Your task to perform on an android device: Go to network settings Image 0: 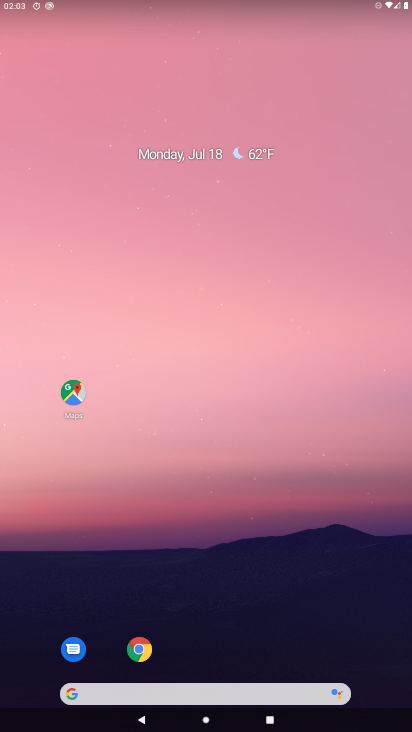
Step 0: drag from (51, 624) to (245, 6)
Your task to perform on an android device: Go to network settings Image 1: 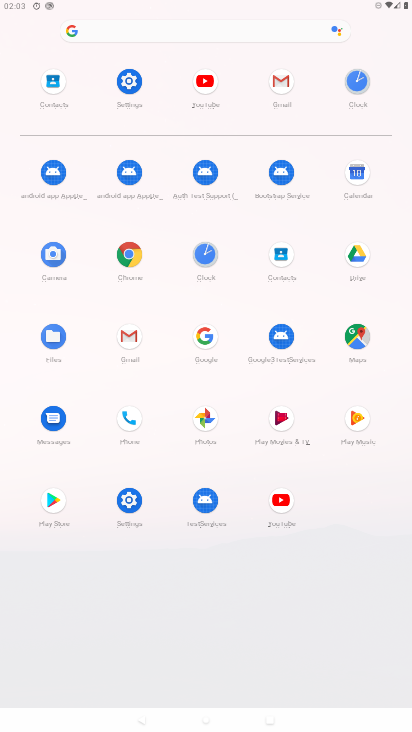
Step 1: click (127, 500)
Your task to perform on an android device: Go to network settings Image 2: 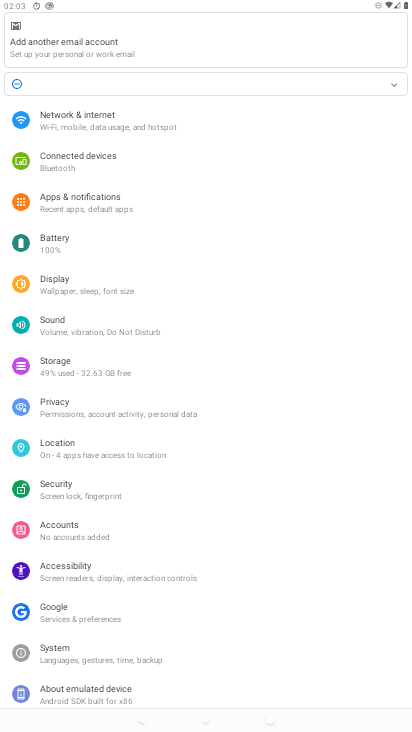
Step 2: click (59, 125)
Your task to perform on an android device: Go to network settings Image 3: 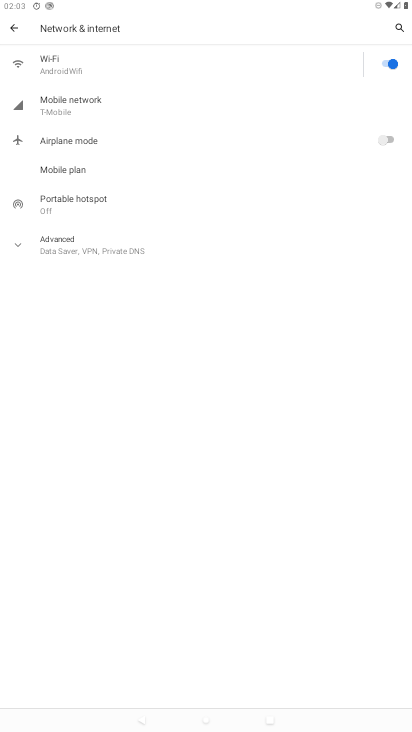
Step 3: click (66, 108)
Your task to perform on an android device: Go to network settings Image 4: 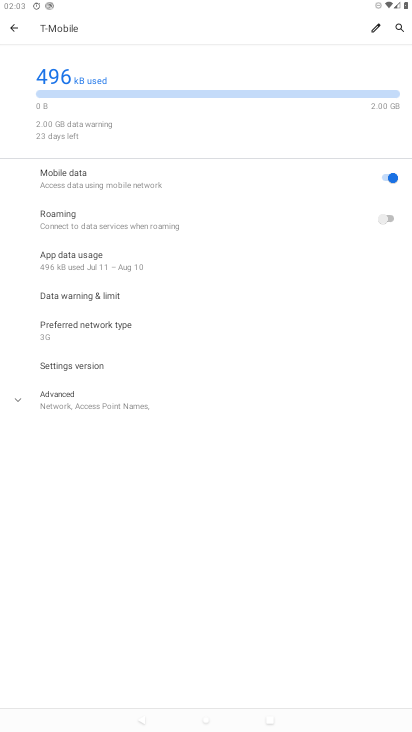
Step 4: task complete